Your task to perform on an android device: delete a single message in the gmail app Image 0: 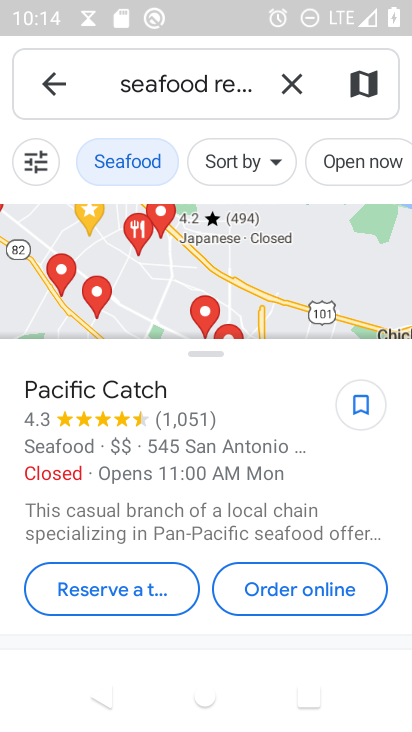
Step 0: press home button
Your task to perform on an android device: delete a single message in the gmail app Image 1: 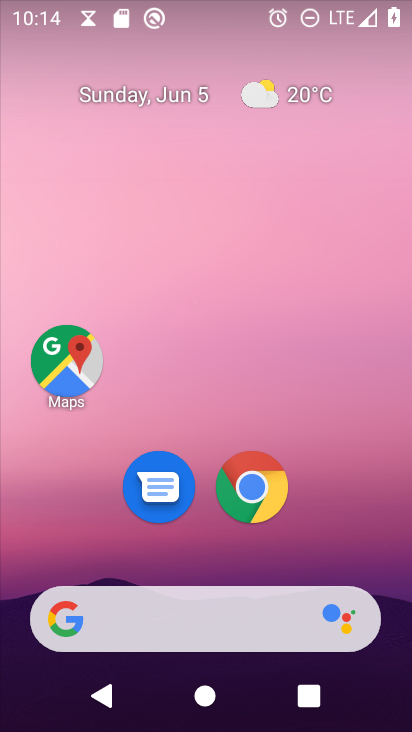
Step 1: drag from (353, 490) to (349, 208)
Your task to perform on an android device: delete a single message in the gmail app Image 2: 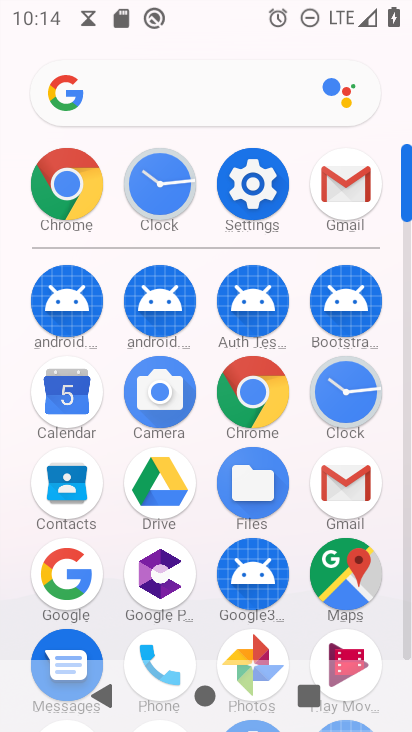
Step 2: click (336, 175)
Your task to perform on an android device: delete a single message in the gmail app Image 3: 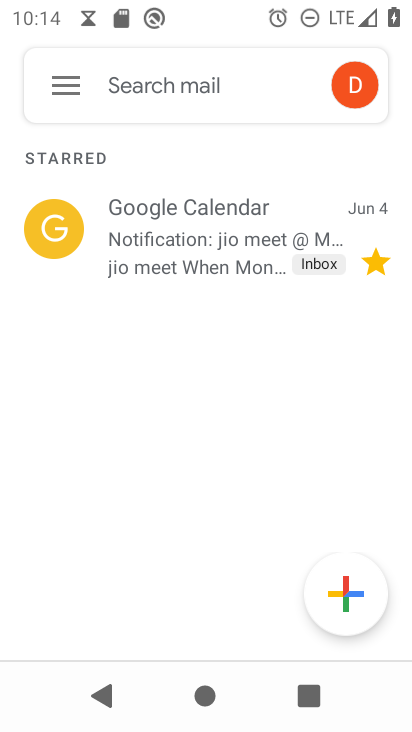
Step 3: click (47, 213)
Your task to perform on an android device: delete a single message in the gmail app Image 4: 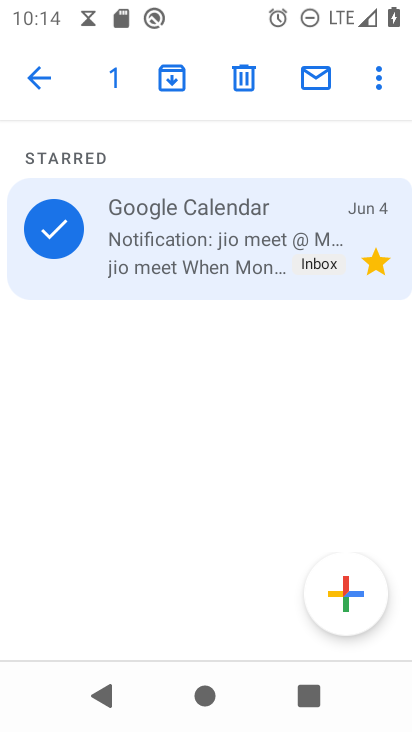
Step 4: click (245, 73)
Your task to perform on an android device: delete a single message in the gmail app Image 5: 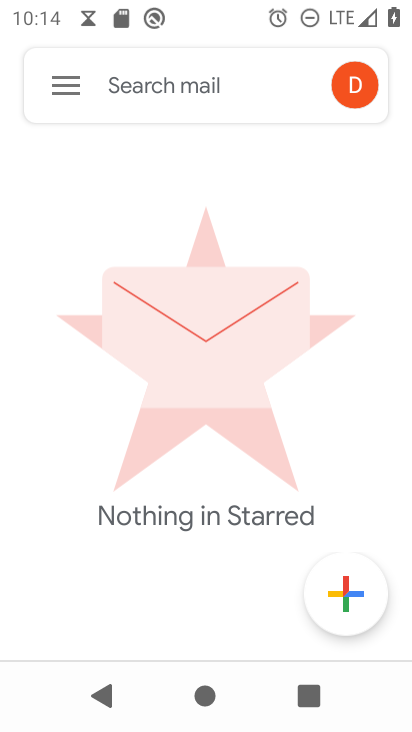
Step 5: task complete